Your task to perform on an android device: Open wifi settings Image 0: 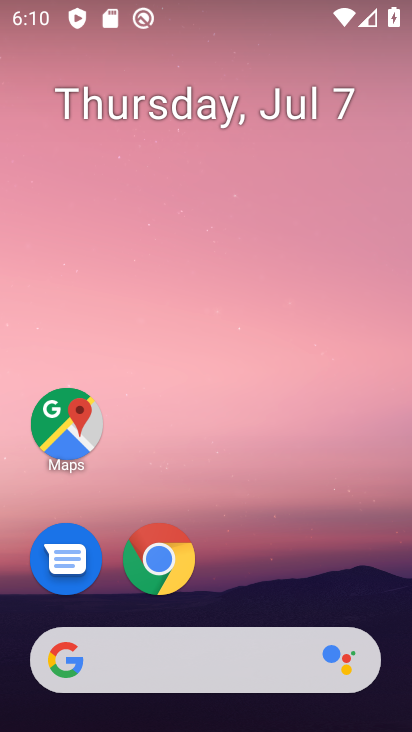
Step 0: drag from (270, 600) to (313, 44)
Your task to perform on an android device: Open wifi settings Image 1: 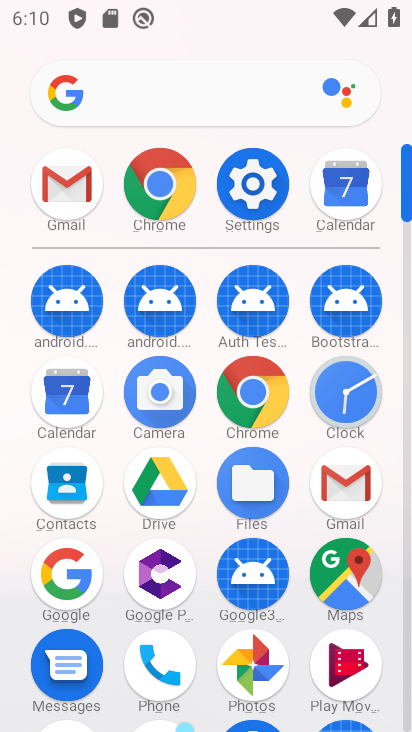
Step 1: click (262, 205)
Your task to perform on an android device: Open wifi settings Image 2: 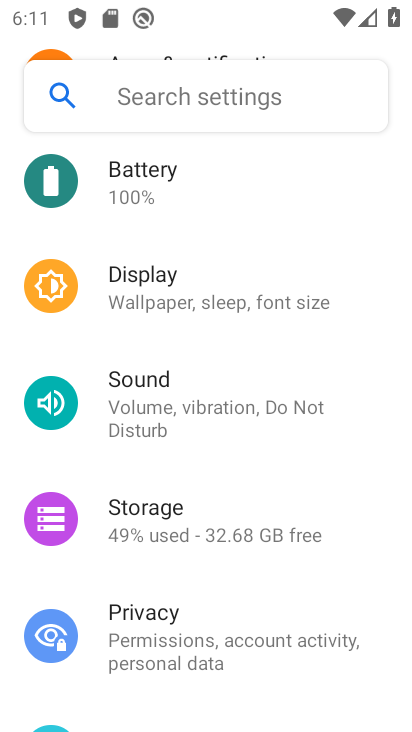
Step 2: drag from (201, 268) to (196, 526)
Your task to perform on an android device: Open wifi settings Image 3: 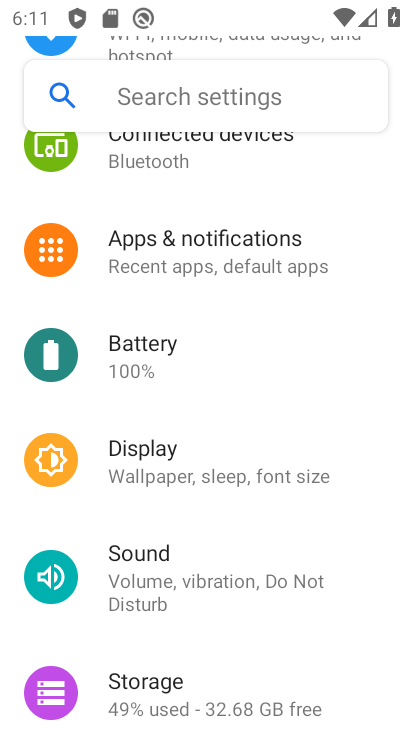
Step 3: drag from (246, 333) to (228, 619)
Your task to perform on an android device: Open wifi settings Image 4: 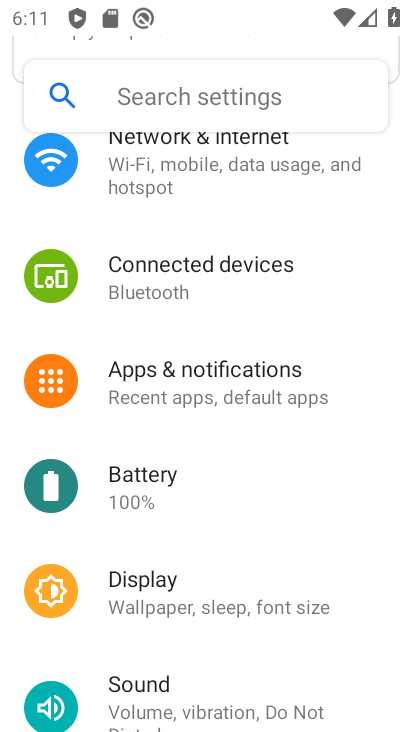
Step 4: drag from (213, 172) to (200, 549)
Your task to perform on an android device: Open wifi settings Image 5: 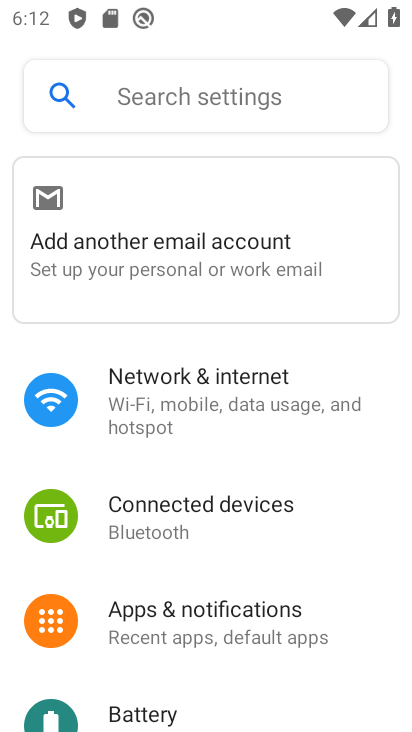
Step 5: click (237, 396)
Your task to perform on an android device: Open wifi settings Image 6: 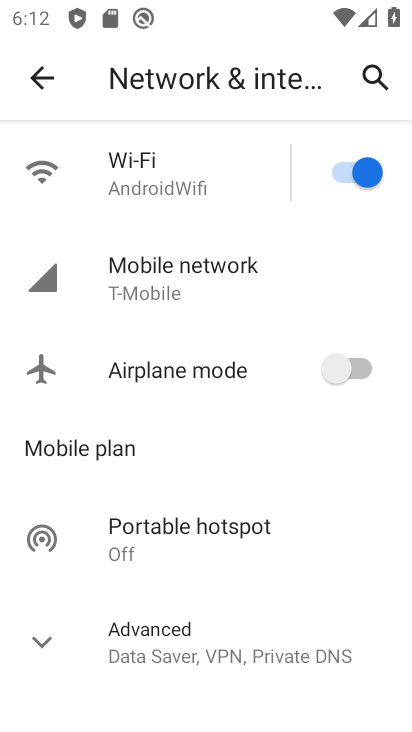
Step 6: click (196, 183)
Your task to perform on an android device: Open wifi settings Image 7: 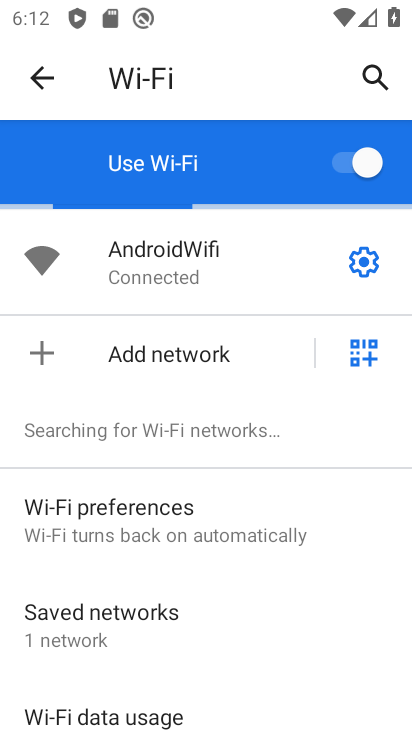
Step 7: task complete